Your task to perform on an android device: turn on translation in the chrome app Image 0: 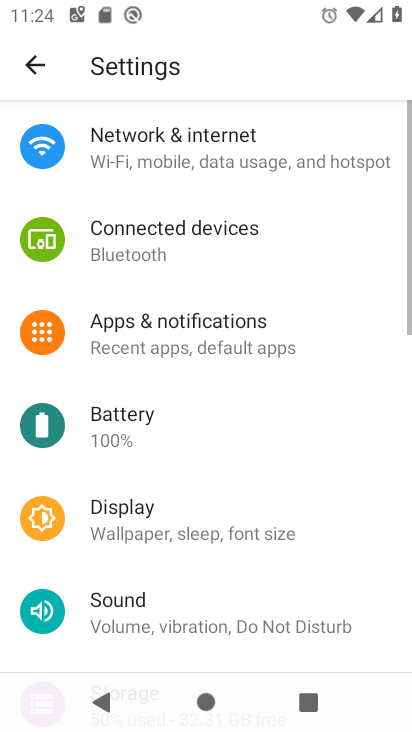
Step 0: press home button
Your task to perform on an android device: turn on translation in the chrome app Image 1: 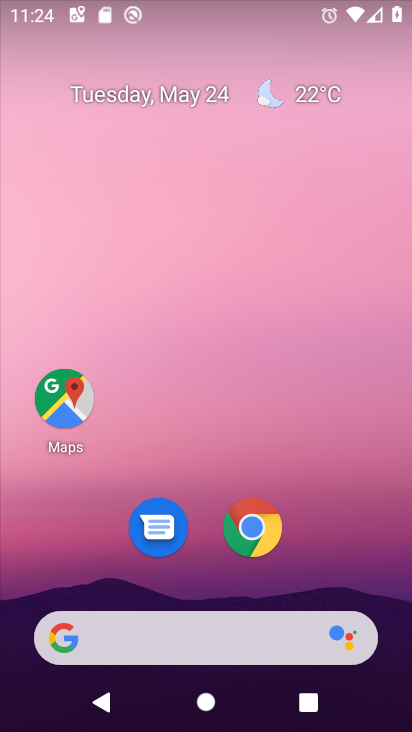
Step 1: click (250, 544)
Your task to perform on an android device: turn on translation in the chrome app Image 2: 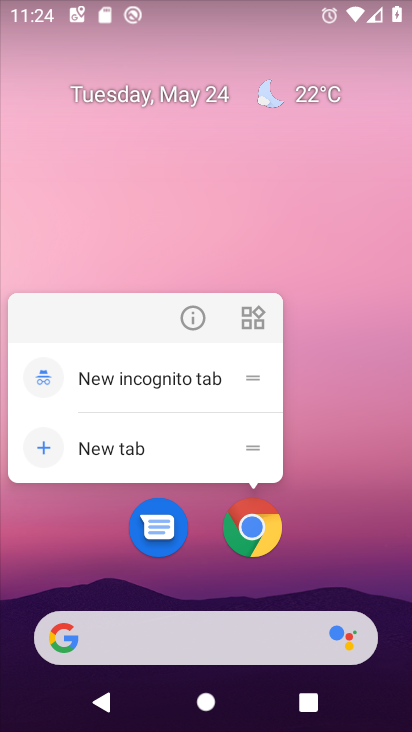
Step 2: click (265, 527)
Your task to perform on an android device: turn on translation in the chrome app Image 3: 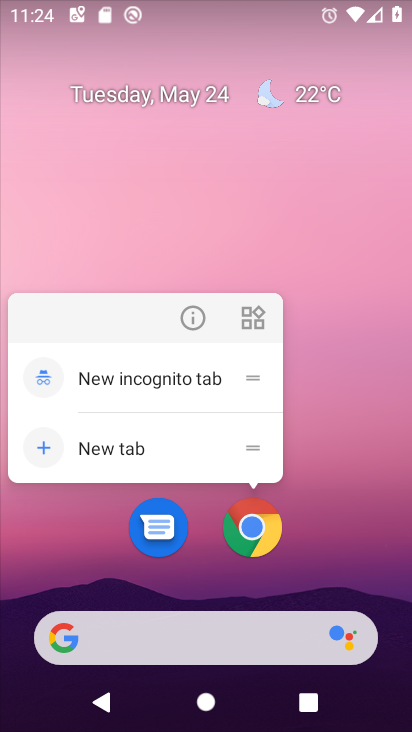
Step 3: click (255, 534)
Your task to perform on an android device: turn on translation in the chrome app Image 4: 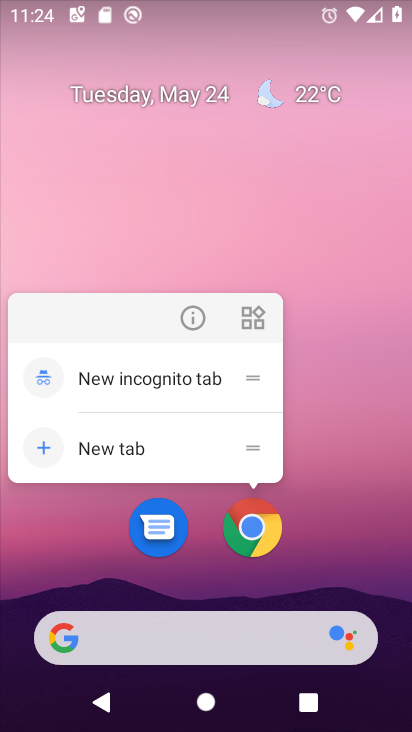
Step 4: click (244, 544)
Your task to perform on an android device: turn on translation in the chrome app Image 5: 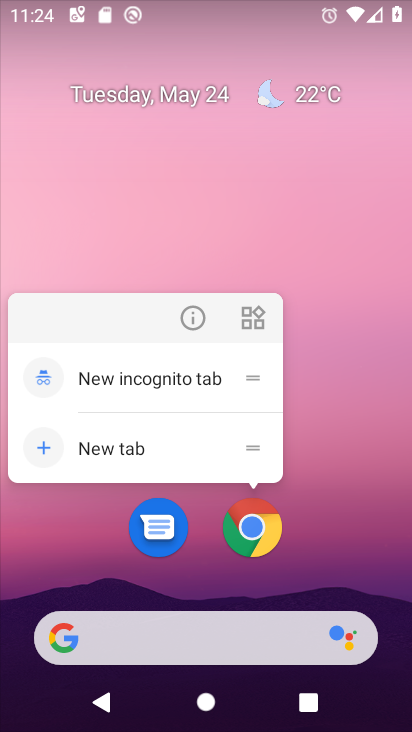
Step 5: click (250, 535)
Your task to perform on an android device: turn on translation in the chrome app Image 6: 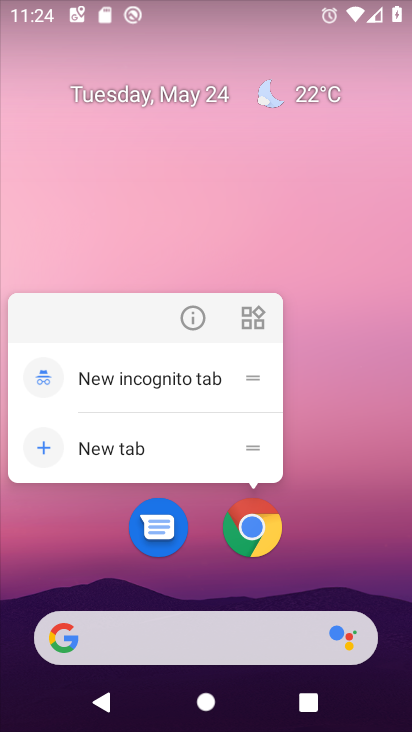
Step 6: click (253, 530)
Your task to perform on an android device: turn on translation in the chrome app Image 7: 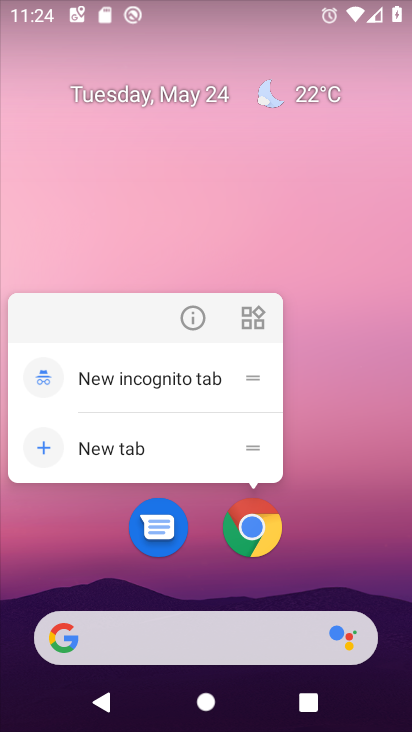
Step 7: click (257, 531)
Your task to perform on an android device: turn on translation in the chrome app Image 8: 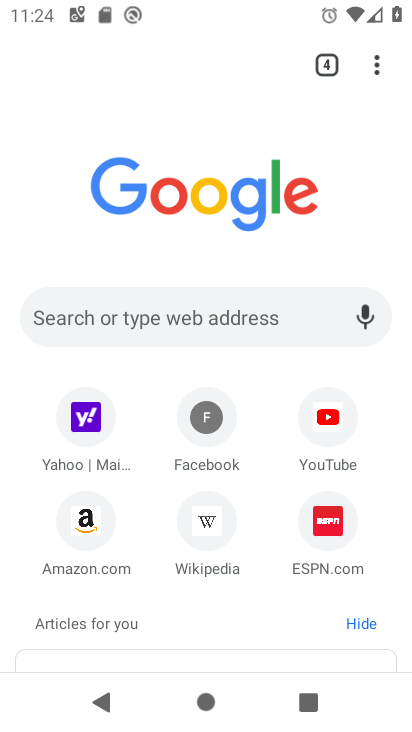
Step 8: drag from (379, 74) to (255, 532)
Your task to perform on an android device: turn on translation in the chrome app Image 9: 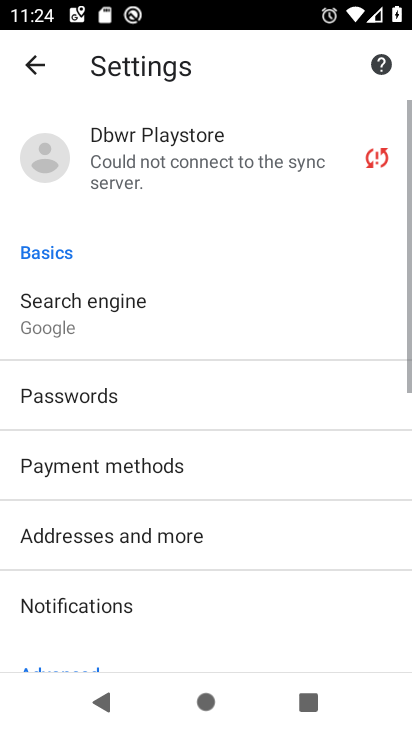
Step 9: drag from (212, 596) to (349, 113)
Your task to perform on an android device: turn on translation in the chrome app Image 10: 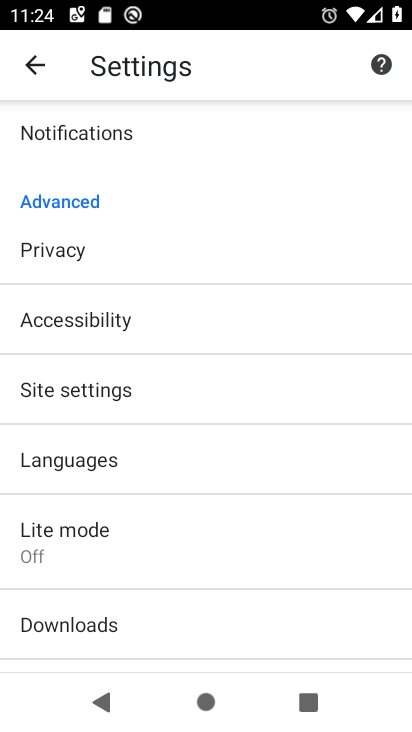
Step 10: click (118, 472)
Your task to perform on an android device: turn on translation in the chrome app Image 11: 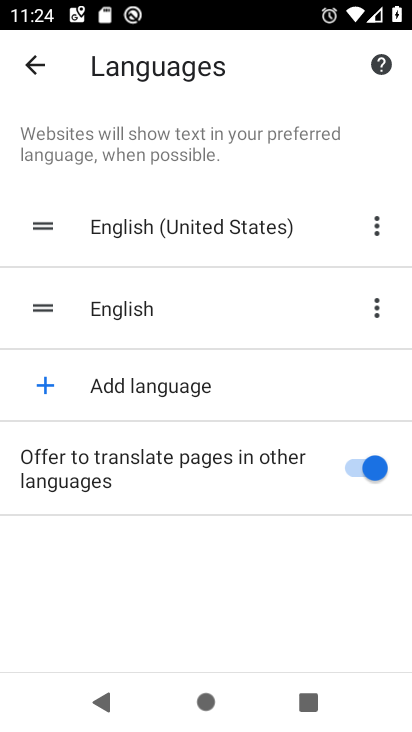
Step 11: task complete